Your task to perform on an android device: Search for seafood restaurants on Google Maps Image 0: 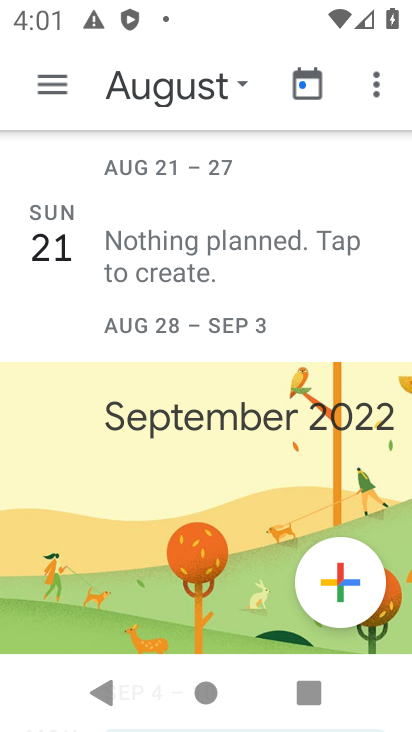
Step 0: click (410, 269)
Your task to perform on an android device: Search for seafood restaurants on Google Maps Image 1: 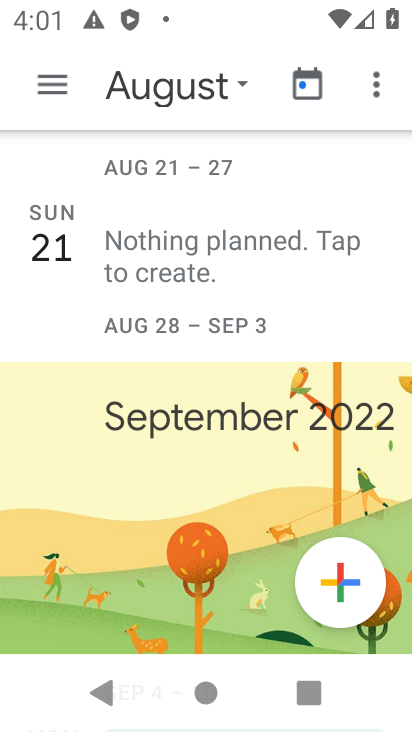
Step 1: press home button
Your task to perform on an android device: Search for seafood restaurants on Google Maps Image 2: 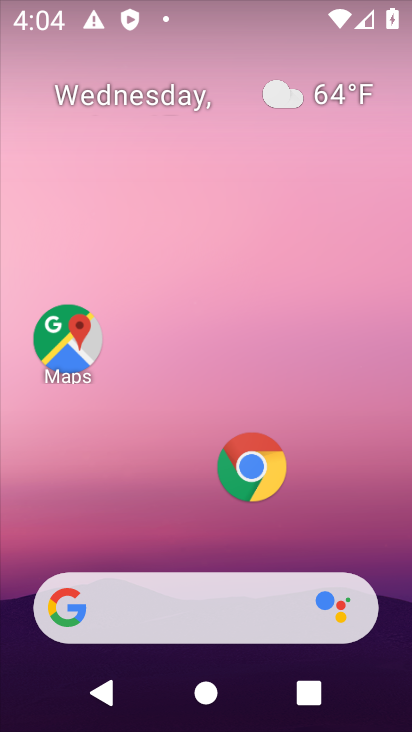
Step 2: drag from (185, 525) to (266, 105)
Your task to perform on an android device: Search for seafood restaurants on Google Maps Image 3: 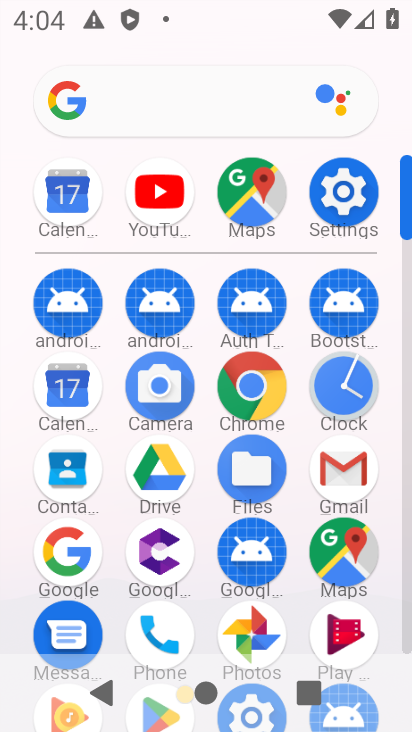
Step 3: click (277, 201)
Your task to perform on an android device: Search for seafood restaurants on Google Maps Image 4: 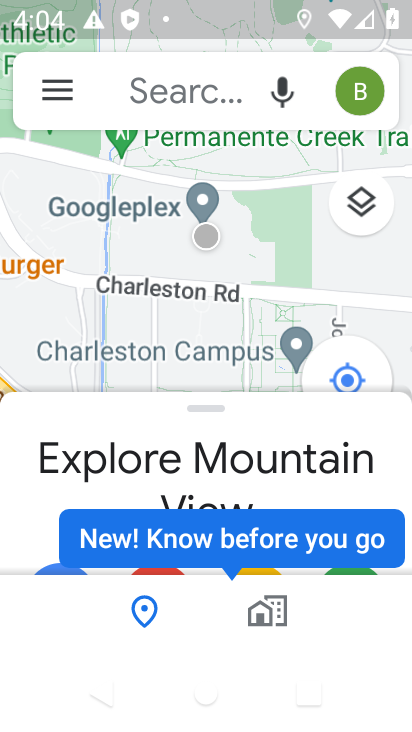
Step 4: task complete